Your task to perform on an android device: turn on airplane mode Image 0: 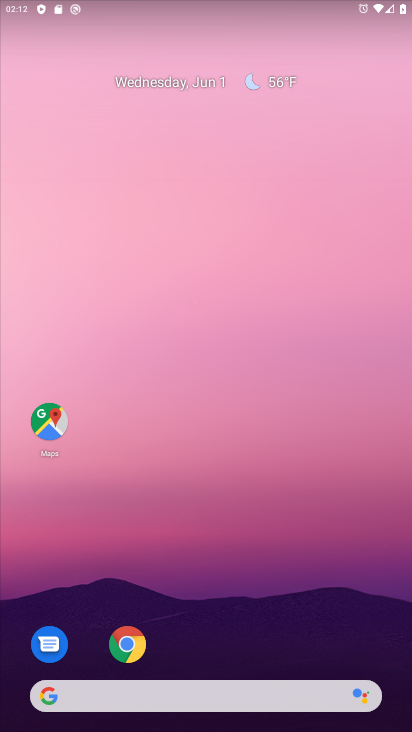
Step 0: drag from (188, 597) to (146, 304)
Your task to perform on an android device: turn on airplane mode Image 1: 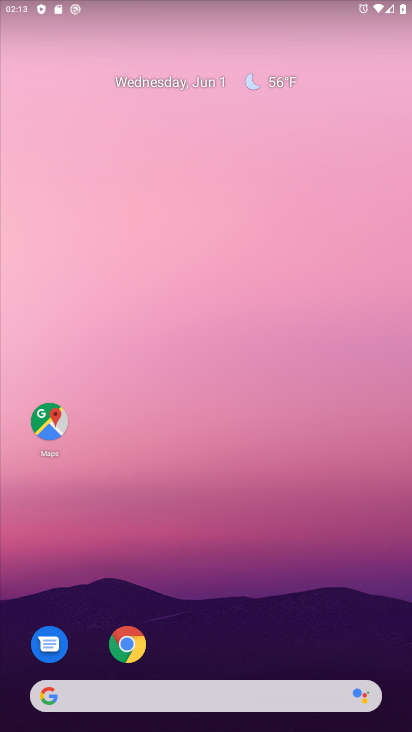
Step 1: drag from (248, 403) to (236, 166)
Your task to perform on an android device: turn on airplane mode Image 2: 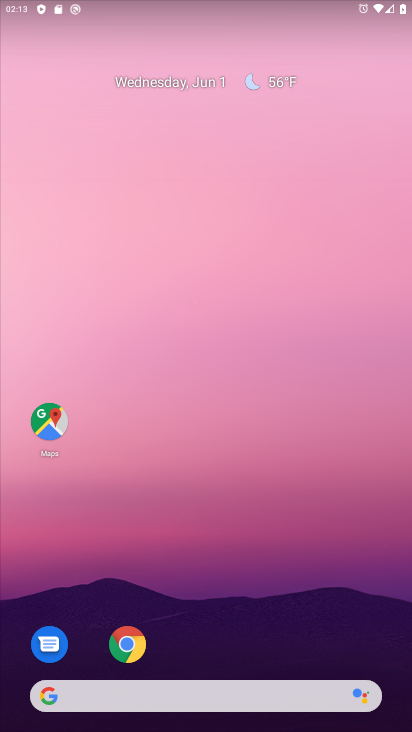
Step 2: drag from (218, 670) to (183, 73)
Your task to perform on an android device: turn on airplane mode Image 3: 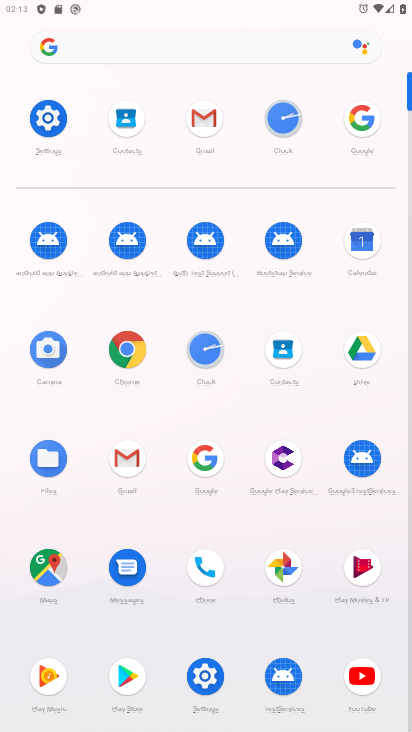
Step 3: click (52, 127)
Your task to perform on an android device: turn on airplane mode Image 4: 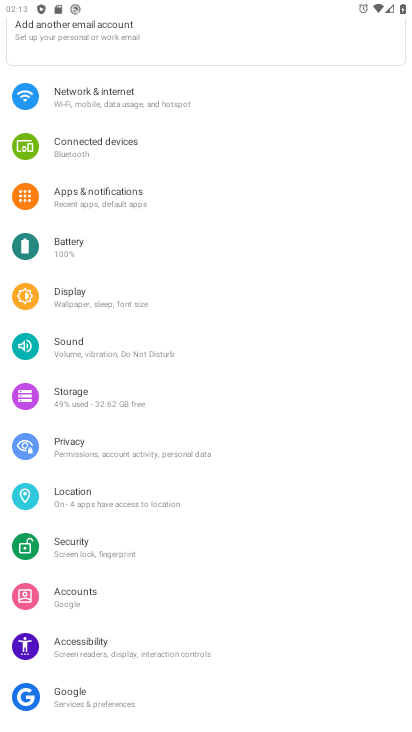
Step 4: click (108, 99)
Your task to perform on an android device: turn on airplane mode Image 5: 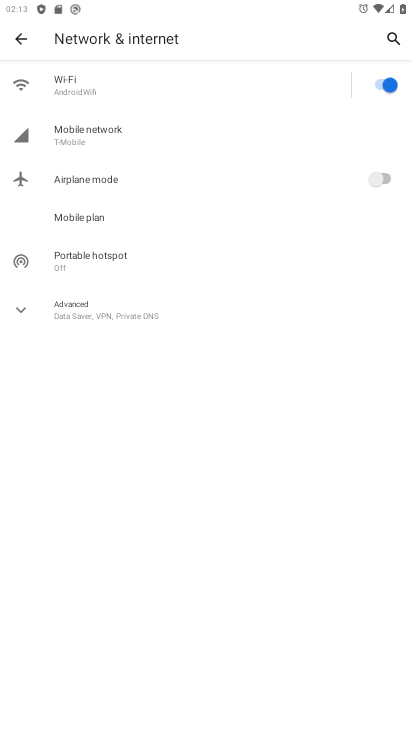
Step 5: click (380, 177)
Your task to perform on an android device: turn on airplane mode Image 6: 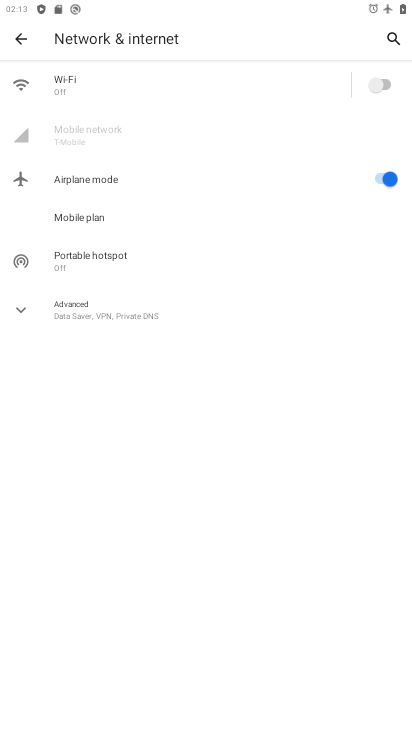
Step 6: task complete